Your task to perform on an android device: turn pop-ups off in chrome Image 0: 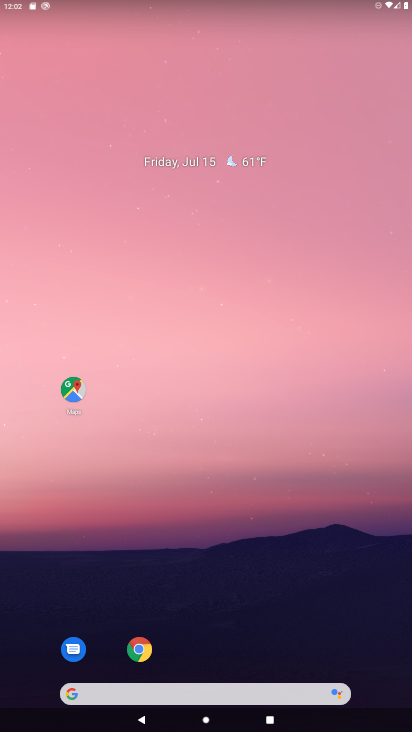
Step 0: click (146, 654)
Your task to perform on an android device: turn pop-ups off in chrome Image 1: 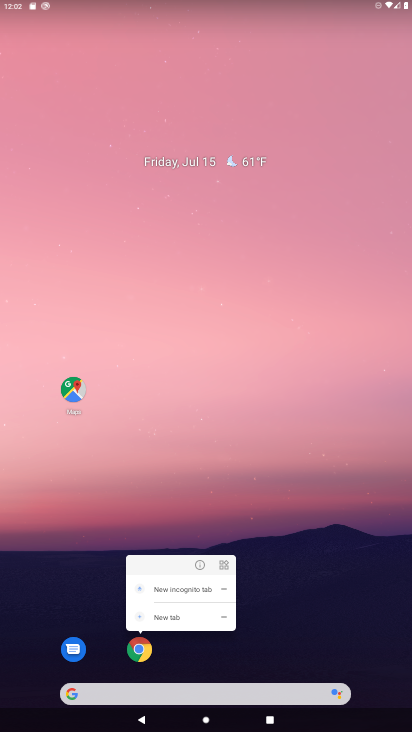
Step 1: click (142, 656)
Your task to perform on an android device: turn pop-ups off in chrome Image 2: 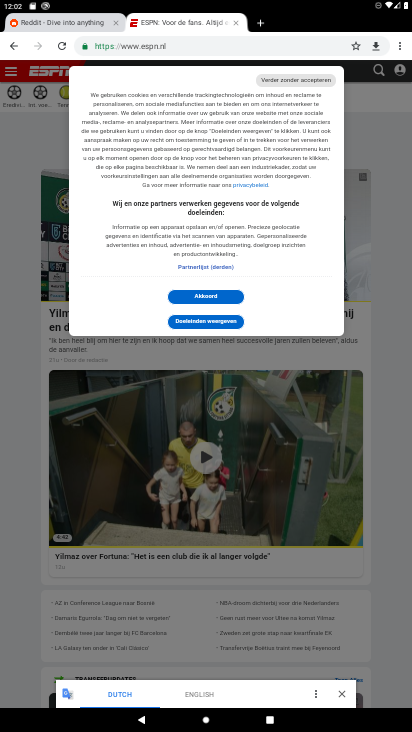
Step 2: click (399, 47)
Your task to perform on an android device: turn pop-ups off in chrome Image 3: 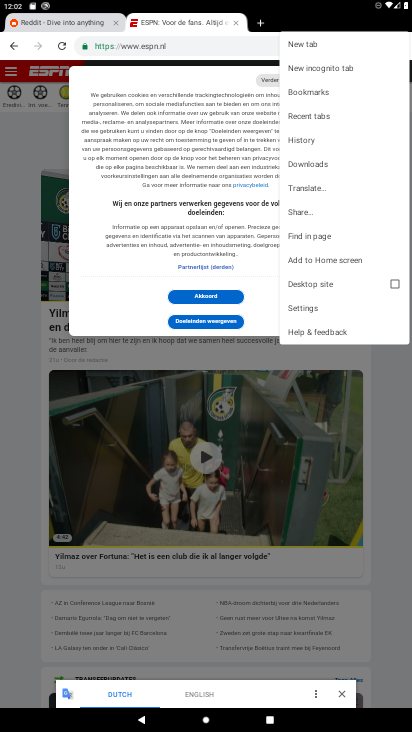
Step 3: click (313, 315)
Your task to perform on an android device: turn pop-ups off in chrome Image 4: 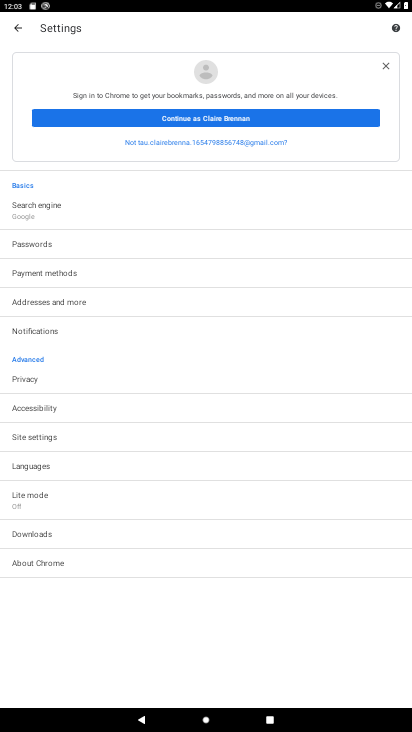
Step 4: click (51, 441)
Your task to perform on an android device: turn pop-ups off in chrome Image 5: 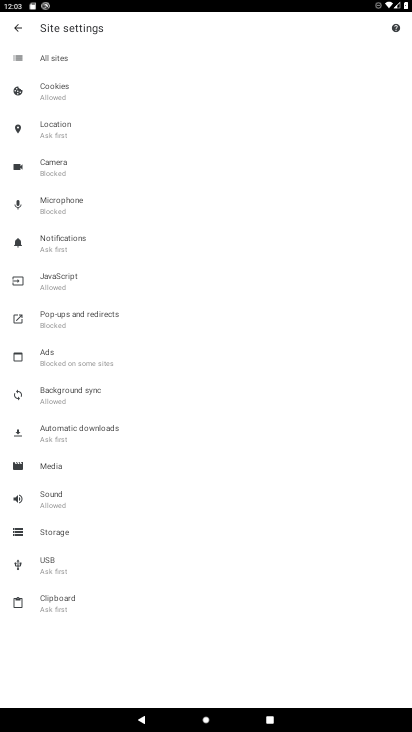
Step 5: click (46, 327)
Your task to perform on an android device: turn pop-ups off in chrome Image 6: 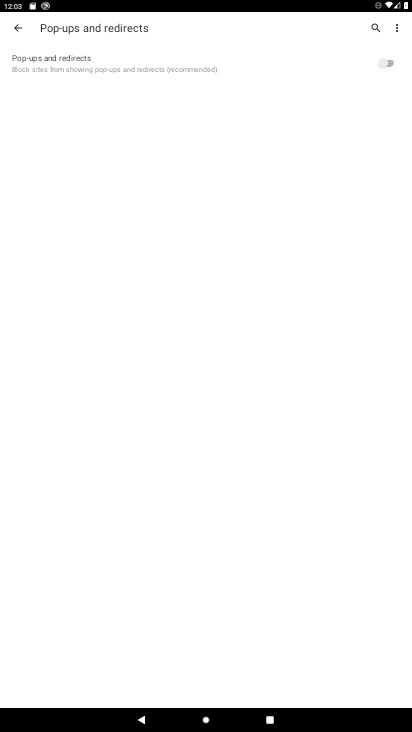
Step 6: task complete